Your task to perform on an android device: Show me popular videos on Youtube Image 0: 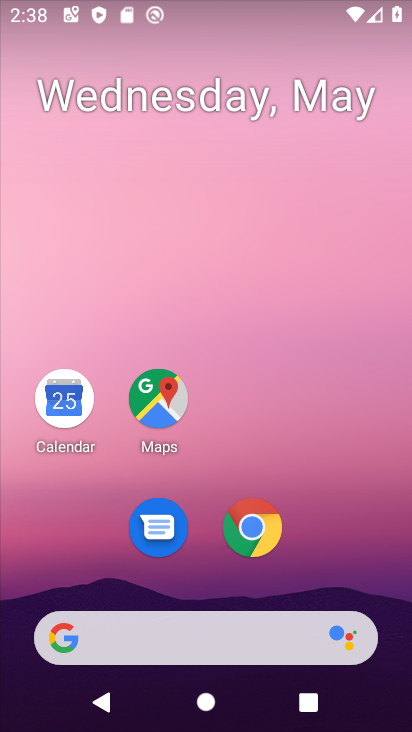
Step 0: drag from (253, 704) to (79, 19)
Your task to perform on an android device: Show me popular videos on Youtube Image 1: 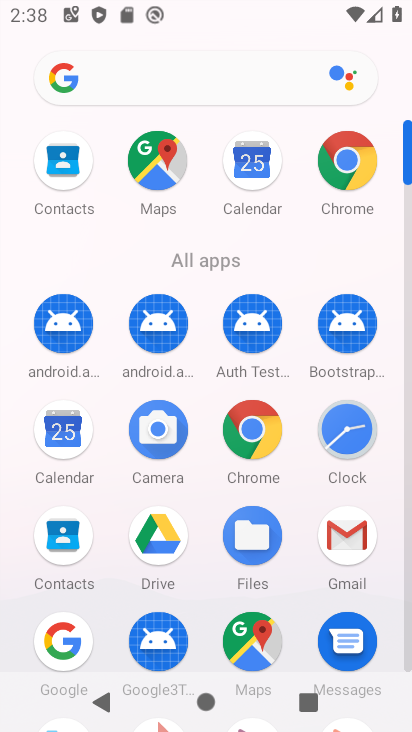
Step 1: drag from (262, 633) to (174, 182)
Your task to perform on an android device: Show me popular videos on Youtube Image 2: 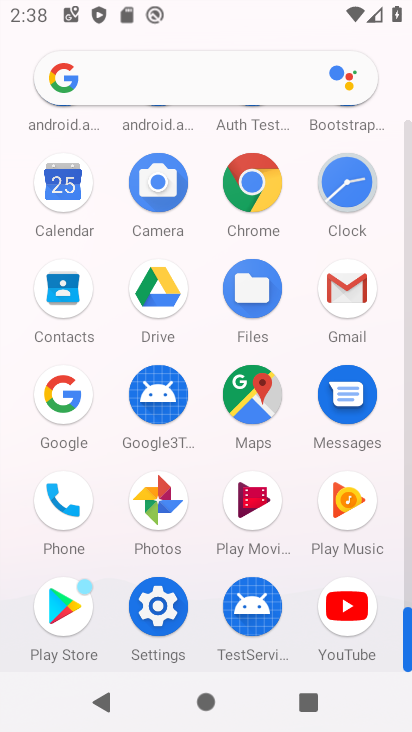
Step 2: click (351, 613)
Your task to perform on an android device: Show me popular videos on Youtube Image 3: 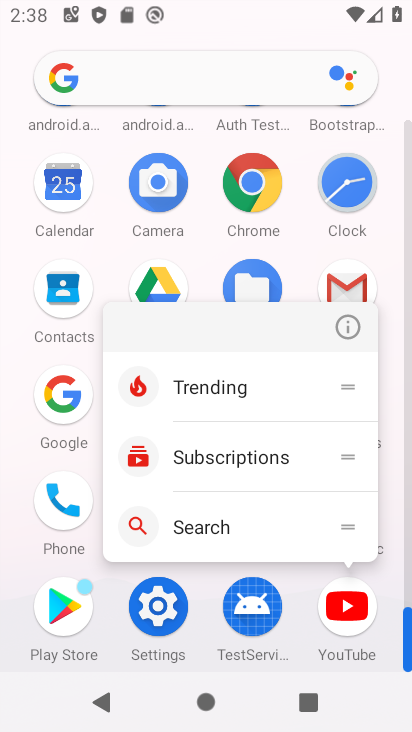
Step 3: click (198, 389)
Your task to perform on an android device: Show me popular videos on Youtube Image 4: 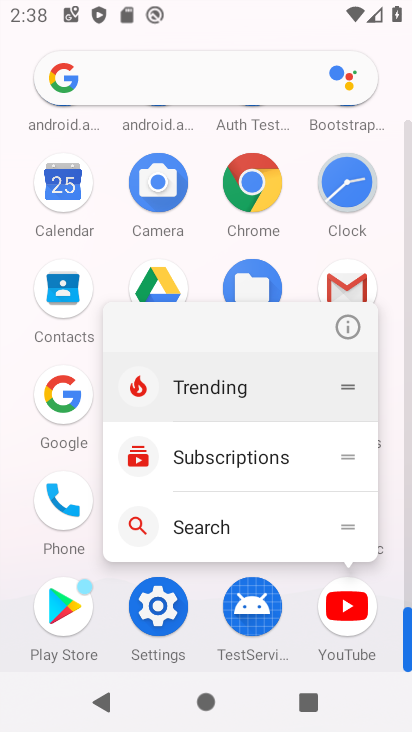
Step 4: click (198, 389)
Your task to perform on an android device: Show me popular videos on Youtube Image 5: 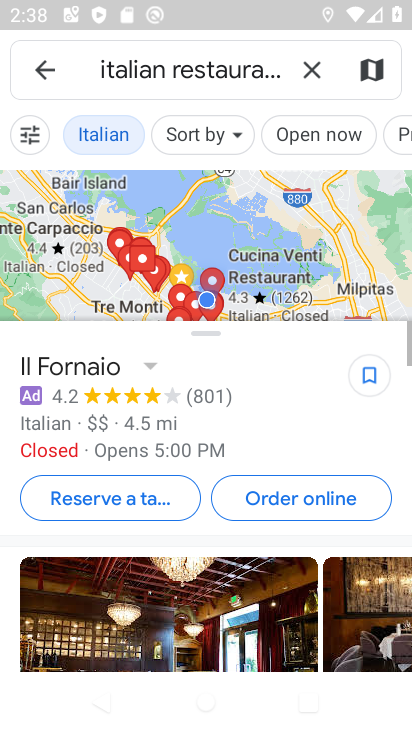
Step 5: task complete